Your task to perform on an android device: See recent photos Image 0: 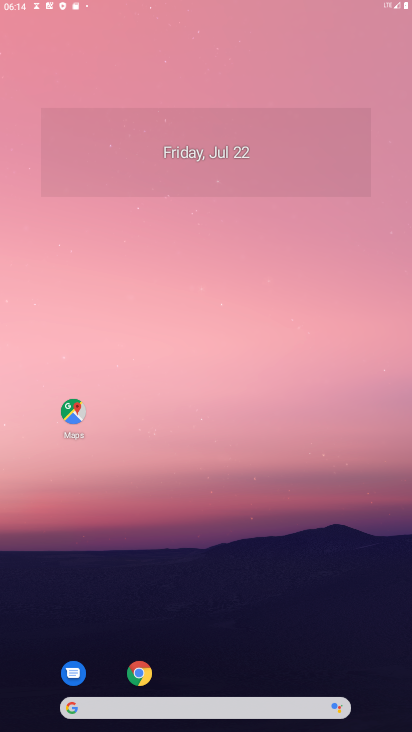
Step 0: press home button
Your task to perform on an android device: See recent photos Image 1: 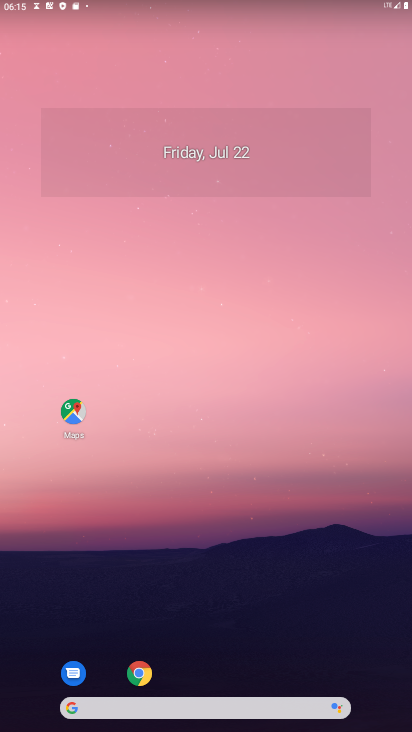
Step 1: drag from (247, 645) to (188, 247)
Your task to perform on an android device: See recent photos Image 2: 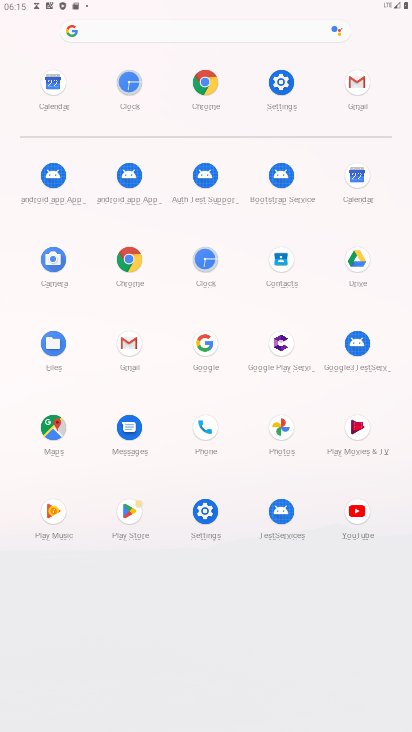
Step 2: click (284, 417)
Your task to perform on an android device: See recent photos Image 3: 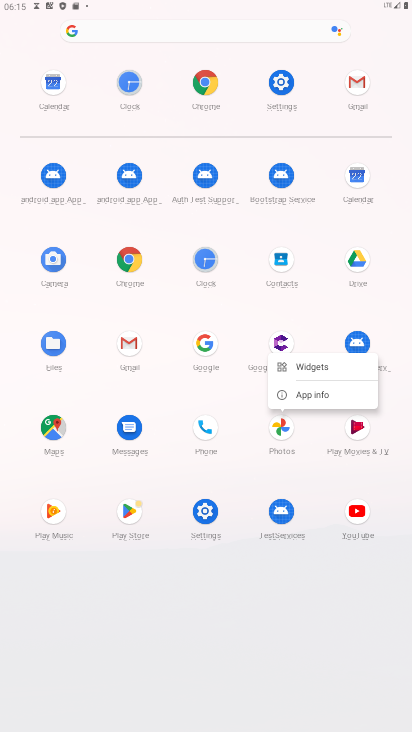
Step 3: click (284, 417)
Your task to perform on an android device: See recent photos Image 4: 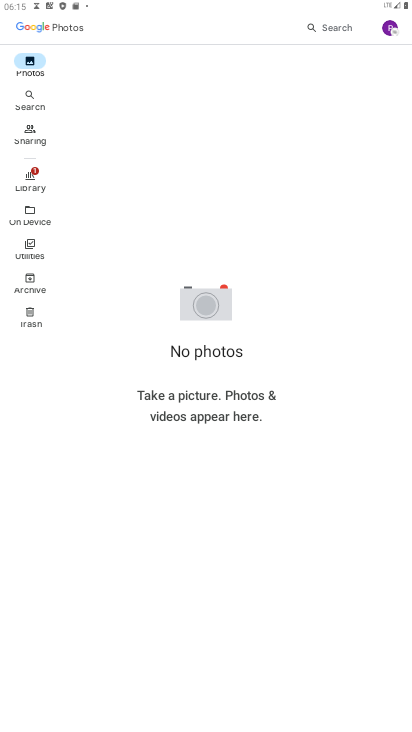
Step 4: click (34, 71)
Your task to perform on an android device: See recent photos Image 5: 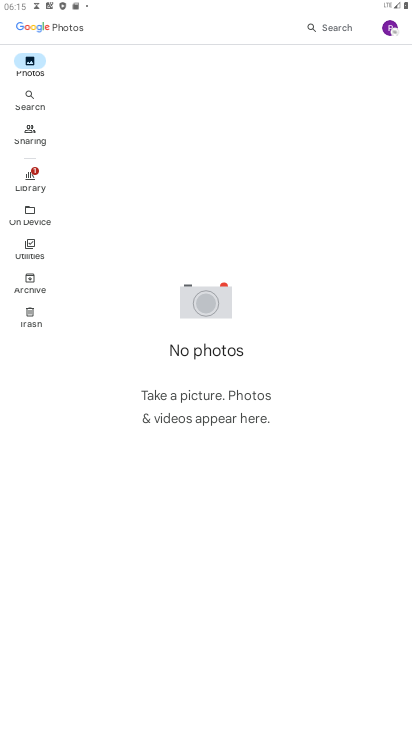
Step 5: task complete